Your task to perform on an android device: Go to Google maps Image 0: 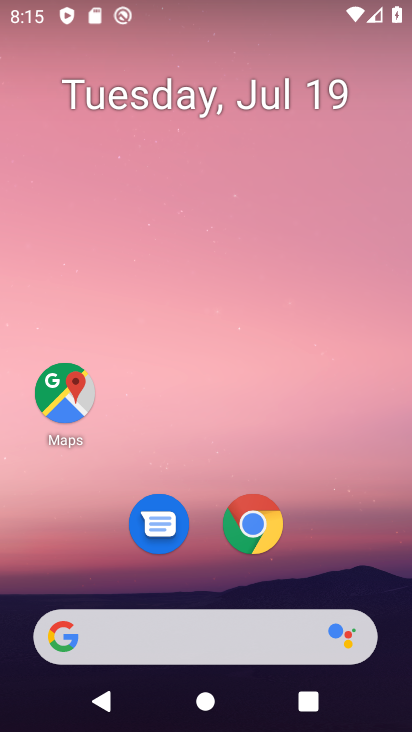
Step 0: press home button
Your task to perform on an android device: Go to Google maps Image 1: 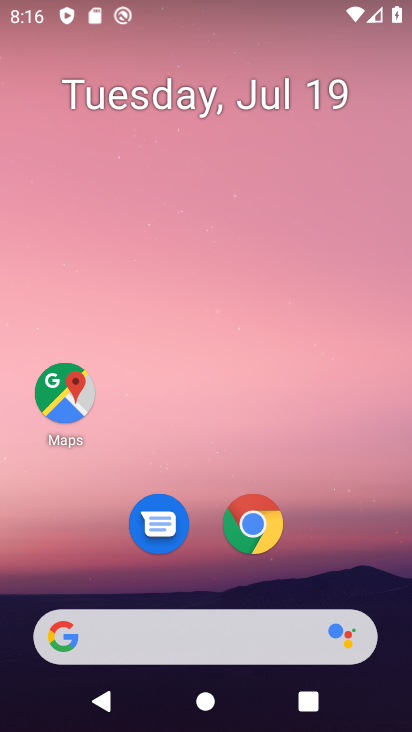
Step 1: click (55, 397)
Your task to perform on an android device: Go to Google maps Image 2: 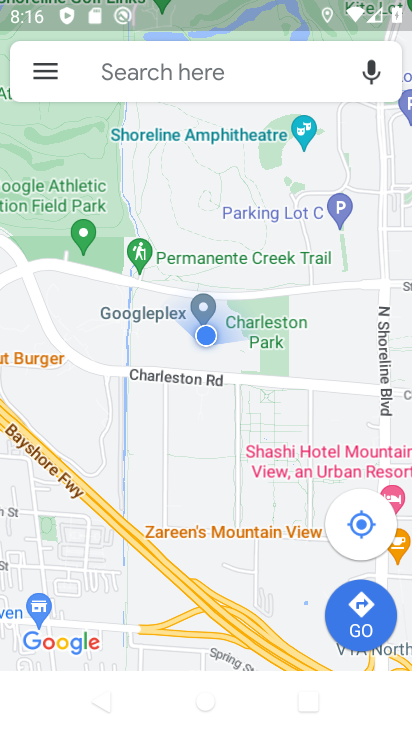
Step 2: task complete